Your task to perform on an android device: Open battery settings Image 0: 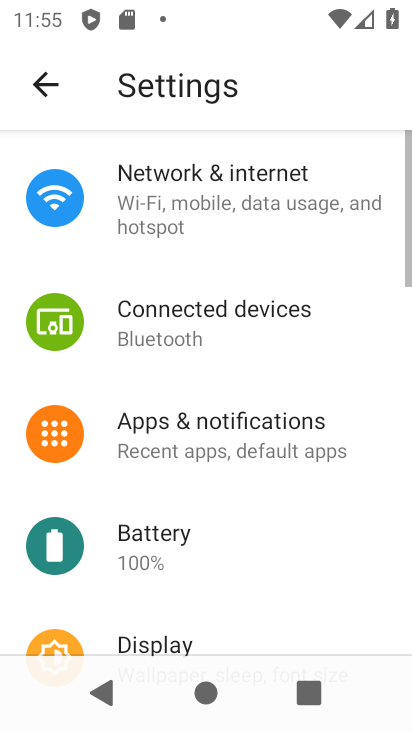
Step 0: press home button
Your task to perform on an android device: Open battery settings Image 1: 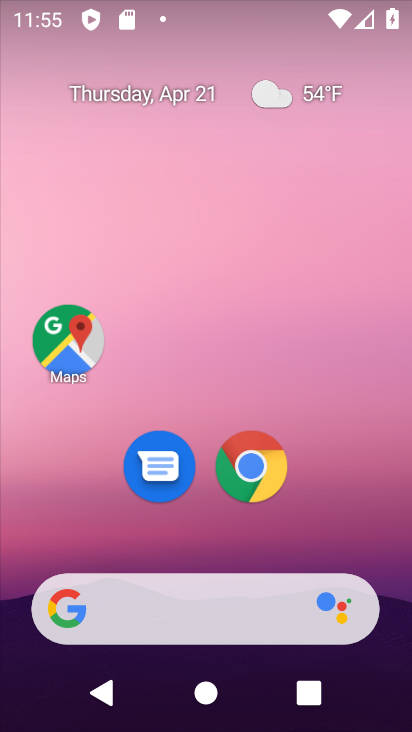
Step 1: drag from (320, 433) to (224, 98)
Your task to perform on an android device: Open battery settings Image 2: 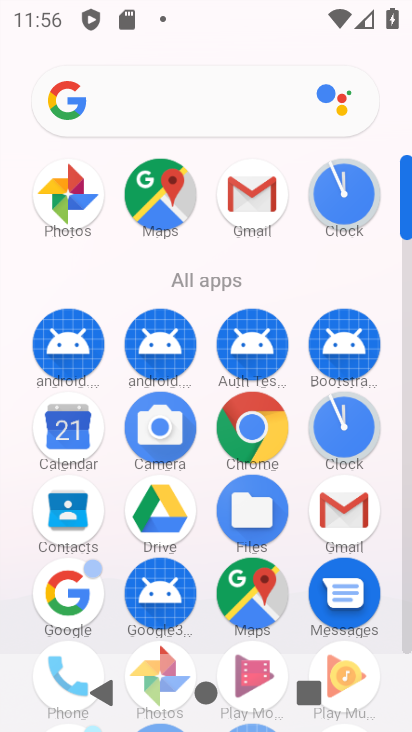
Step 2: drag from (311, 587) to (299, 256)
Your task to perform on an android device: Open battery settings Image 3: 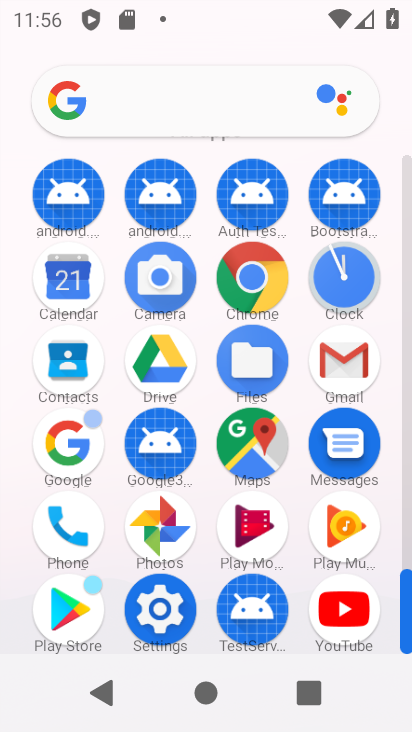
Step 3: click (164, 620)
Your task to perform on an android device: Open battery settings Image 4: 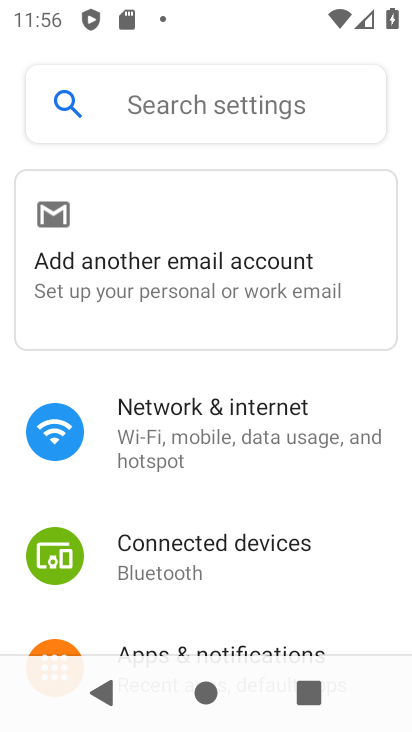
Step 4: drag from (166, 604) to (165, 149)
Your task to perform on an android device: Open battery settings Image 5: 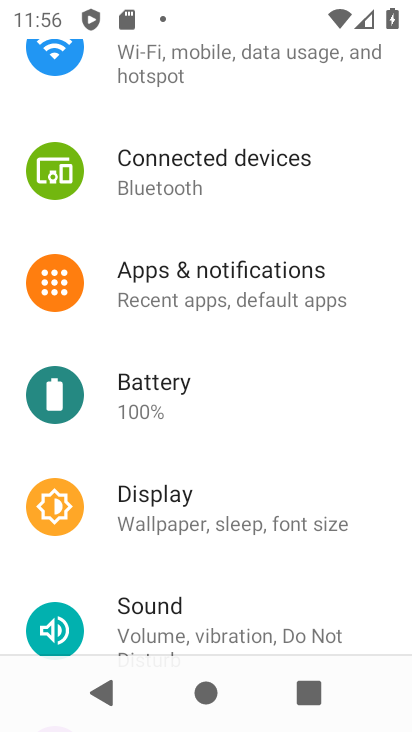
Step 5: drag from (188, 603) to (192, 241)
Your task to perform on an android device: Open battery settings Image 6: 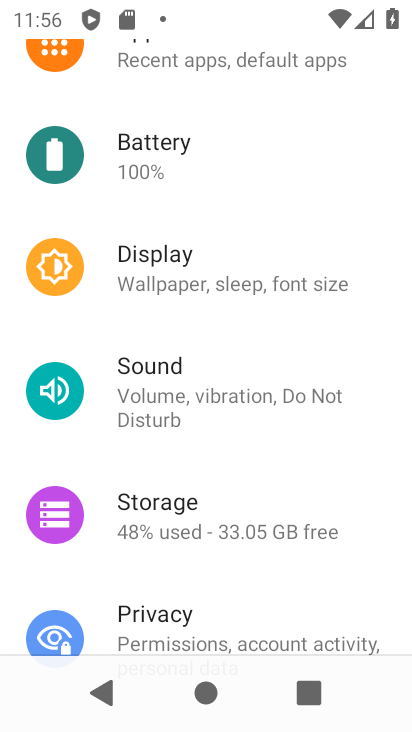
Step 6: click (158, 174)
Your task to perform on an android device: Open battery settings Image 7: 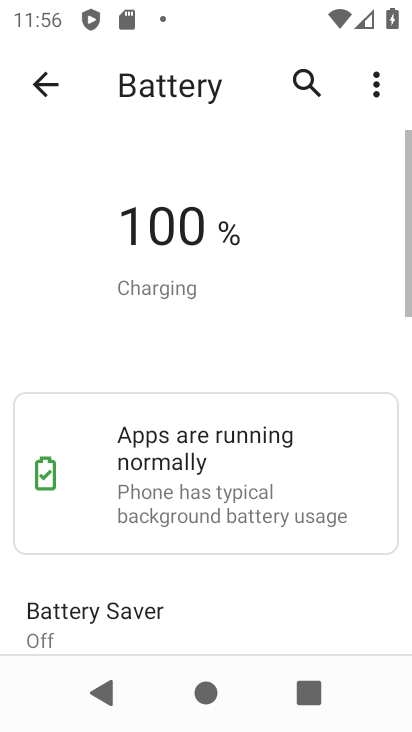
Step 7: task complete